Your task to perform on an android device: Open the web browser Image 0: 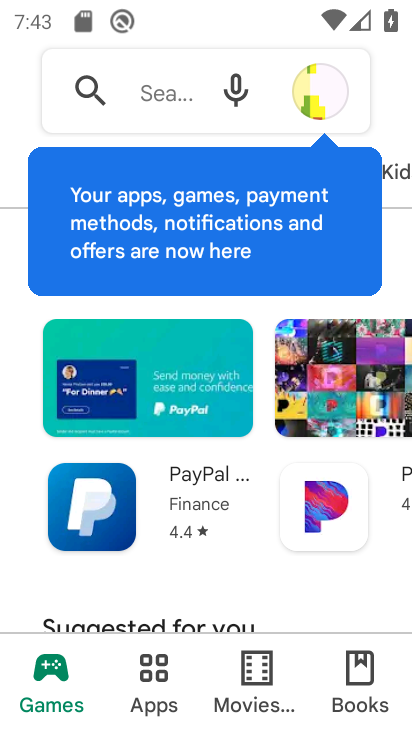
Step 0: drag from (303, 327) to (325, 167)
Your task to perform on an android device: Open the web browser Image 1: 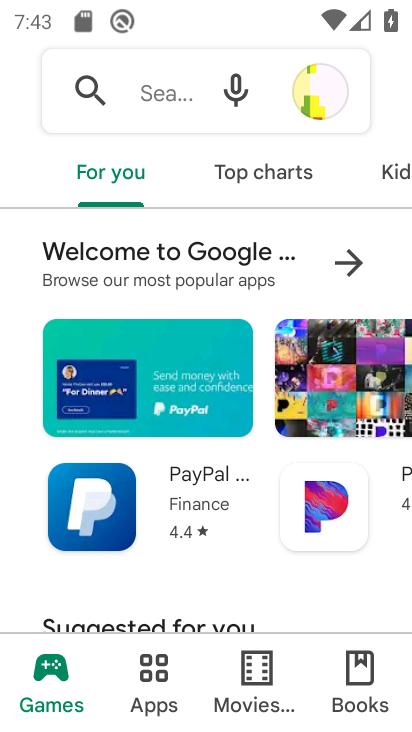
Step 1: press home button
Your task to perform on an android device: Open the web browser Image 2: 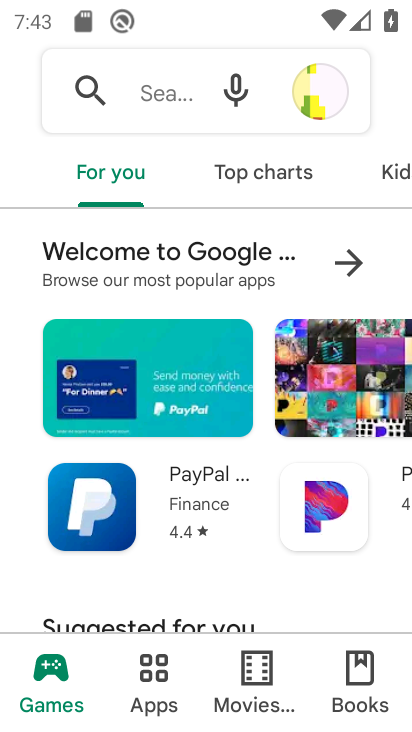
Step 2: press home button
Your task to perform on an android device: Open the web browser Image 3: 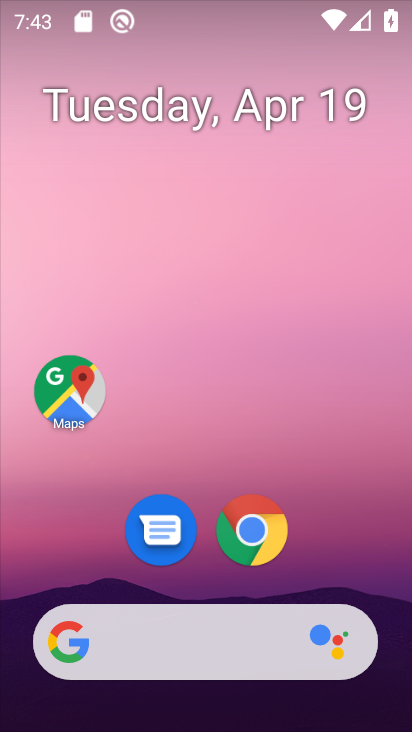
Step 3: click (249, 536)
Your task to perform on an android device: Open the web browser Image 4: 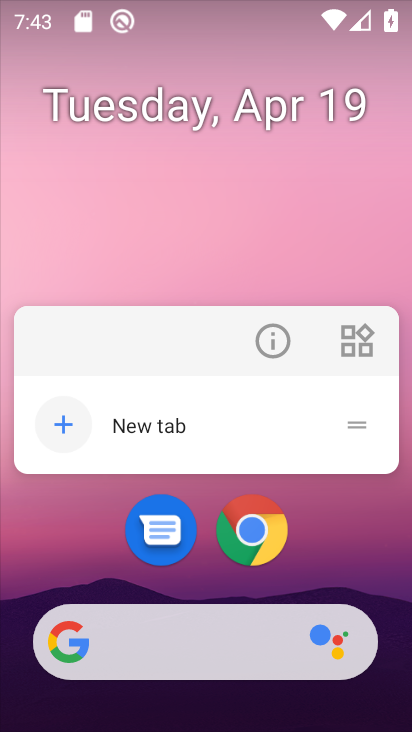
Step 4: click (287, 329)
Your task to perform on an android device: Open the web browser Image 5: 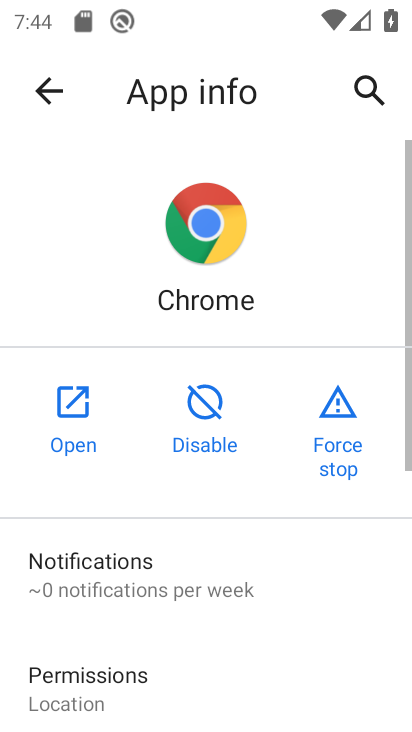
Step 5: click (101, 415)
Your task to perform on an android device: Open the web browser Image 6: 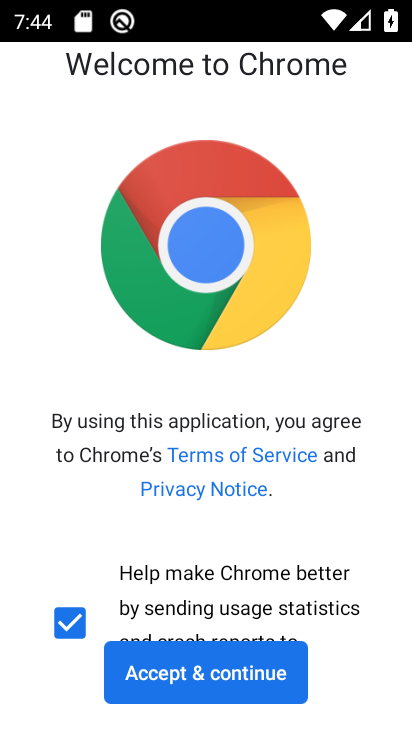
Step 6: click (200, 674)
Your task to perform on an android device: Open the web browser Image 7: 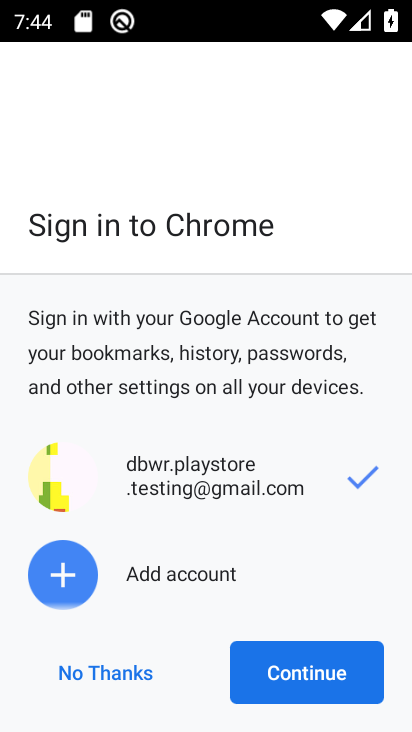
Step 7: click (297, 666)
Your task to perform on an android device: Open the web browser Image 8: 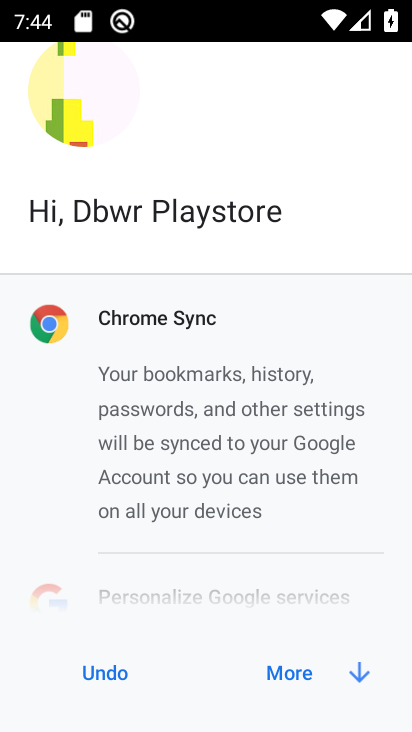
Step 8: click (298, 678)
Your task to perform on an android device: Open the web browser Image 9: 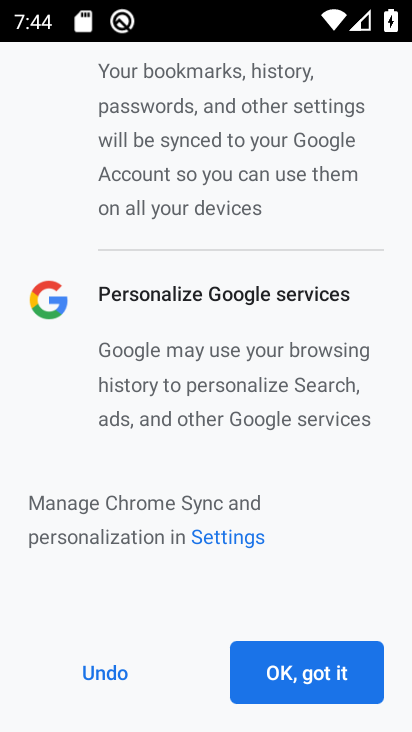
Step 9: click (274, 684)
Your task to perform on an android device: Open the web browser Image 10: 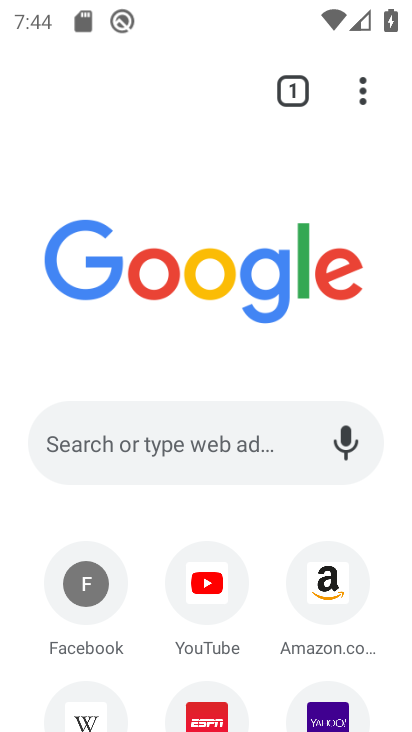
Step 10: task complete